Your task to perform on an android device: Open Google Image 0: 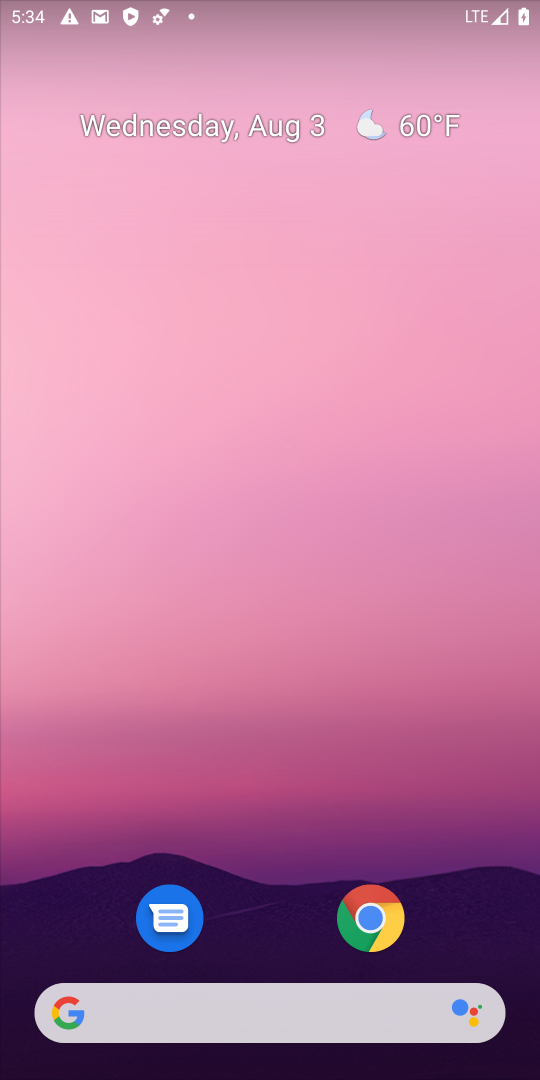
Step 0: drag from (248, 991) to (1, 392)
Your task to perform on an android device: Open Google Image 1: 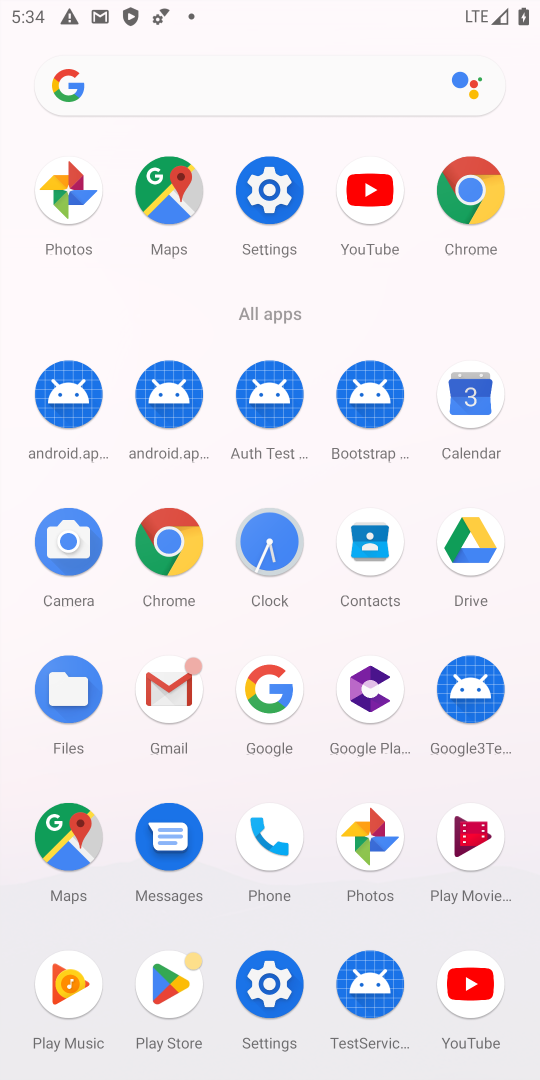
Step 1: click (275, 700)
Your task to perform on an android device: Open Google Image 2: 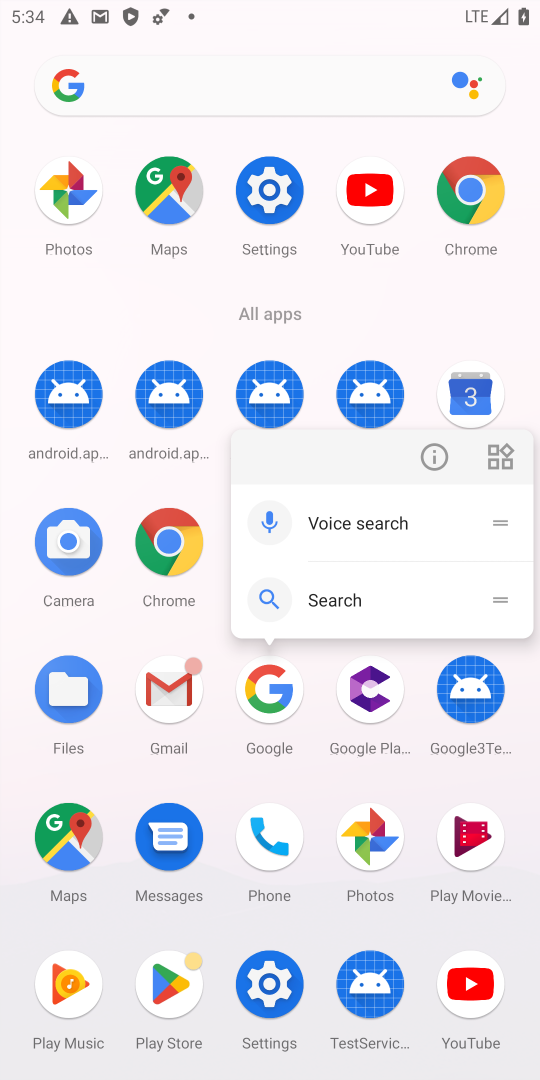
Step 2: click (275, 700)
Your task to perform on an android device: Open Google Image 3: 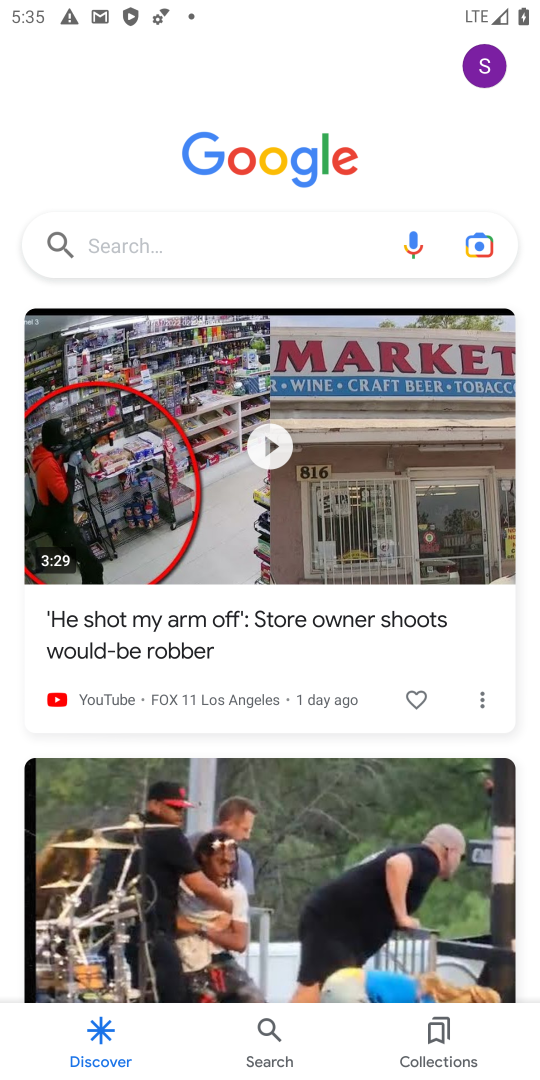
Step 3: task complete